Your task to perform on an android device: toggle improve location accuracy Image 0: 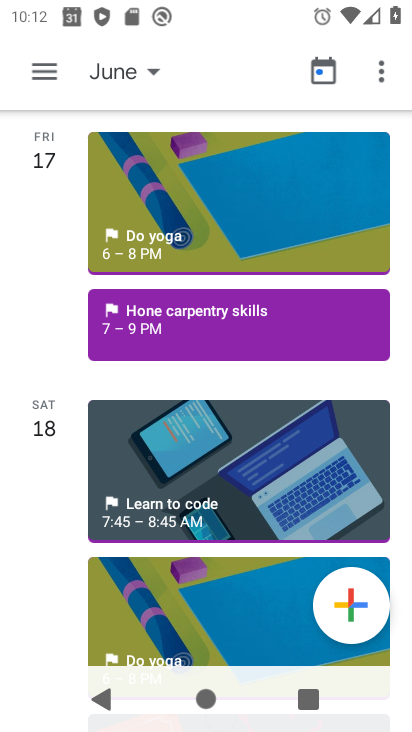
Step 0: click (382, 341)
Your task to perform on an android device: toggle improve location accuracy Image 1: 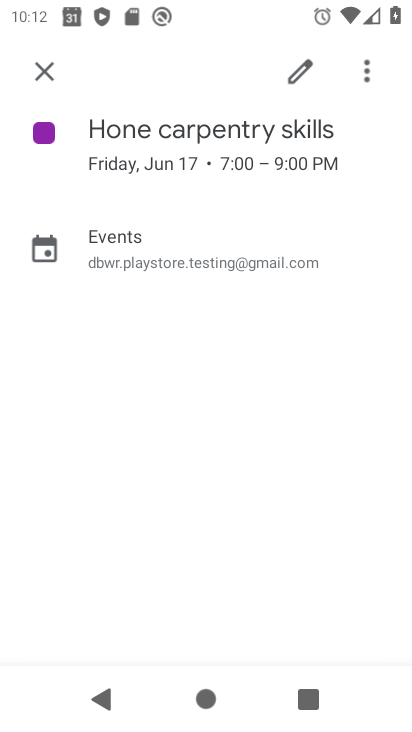
Step 1: press home button
Your task to perform on an android device: toggle improve location accuracy Image 2: 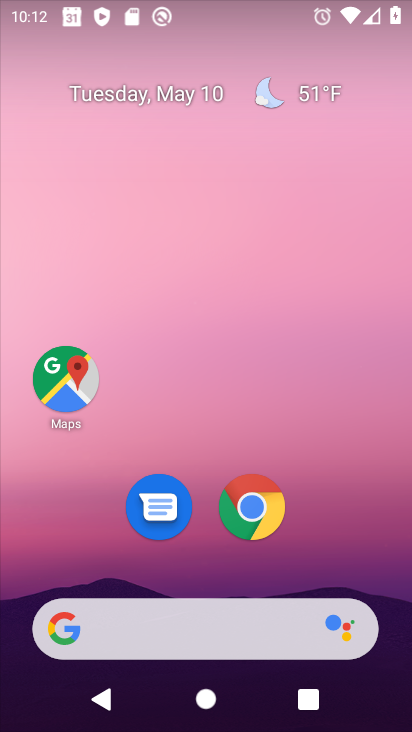
Step 2: drag from (201, 550) to (222, 6)
Your task to perform on an android device: toggle improve location accuracy Image 3: 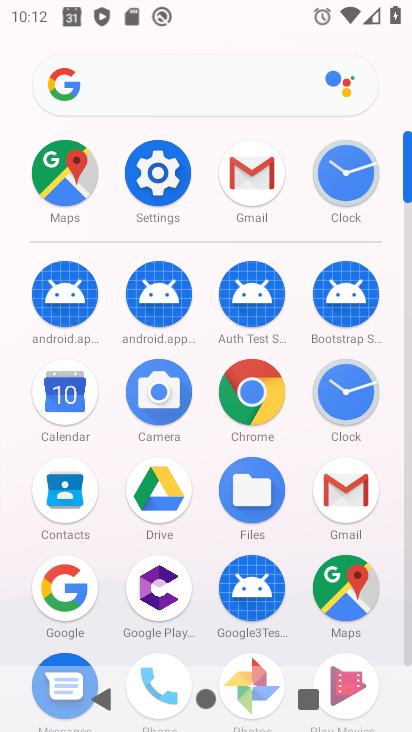
Step 3: click (169, 179)
Your task to perform on an android device: toggle improve location accuracy Image 4: 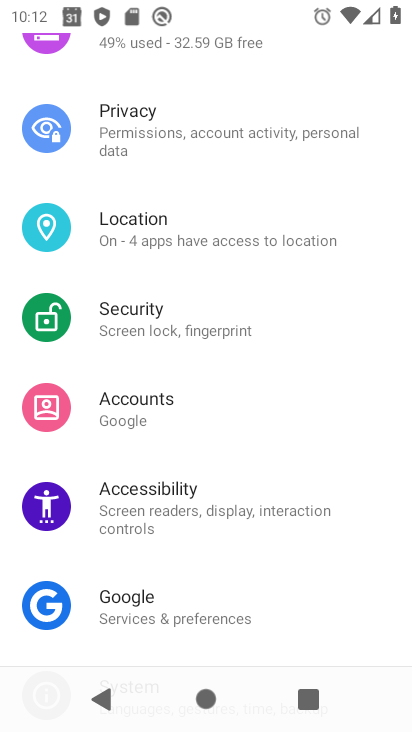
Step 4: click (126, 216)
Your task to perform on an android device: toggle improve location accuracy Image 5: 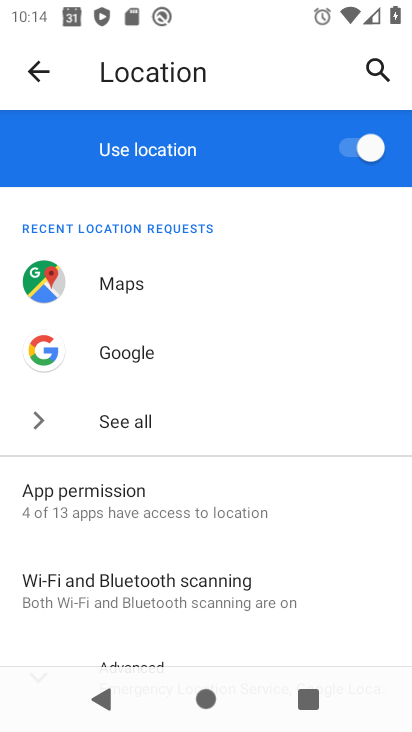
Step 5: drag from (188, 516) to (268, 209)
Your task to perform on an android device: toggle improve location accuracy Image 6: 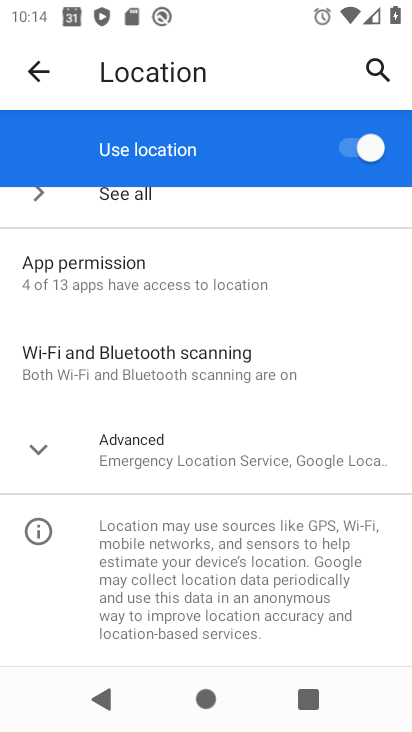
Step 6: click (168, 452)
Your task to perform on an android device: toggle improve location accuracy Image 7: 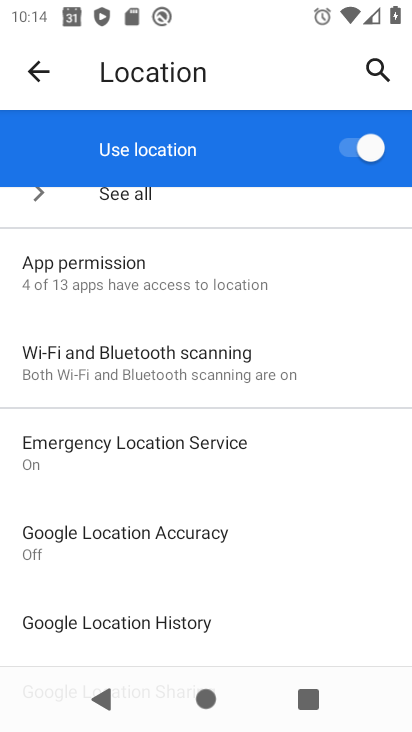
Step 7: click (165, 542)
Your task to perform on an android device: toggle improve location accuracy Image 8: 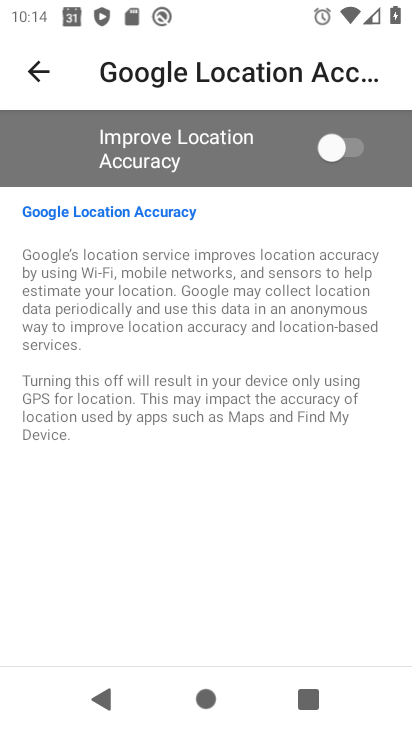
Step 8: click (349, 166)
Your task to perform on an android device: toggle improve location accuracy Image 9: 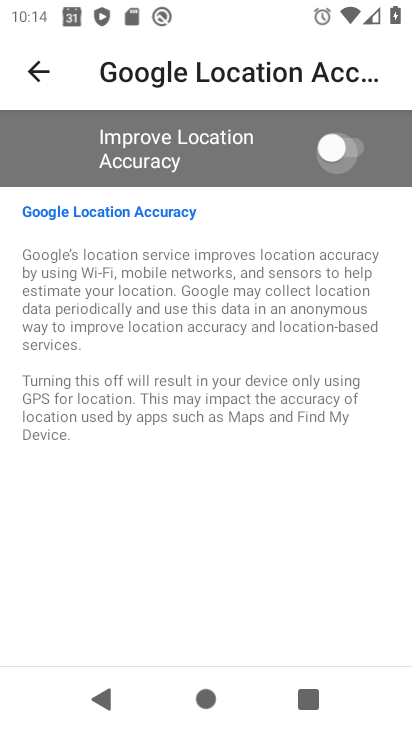
Step 9: click (349, 166)
Your task to perform on an android device: toggle improve location accuracy Image 10: 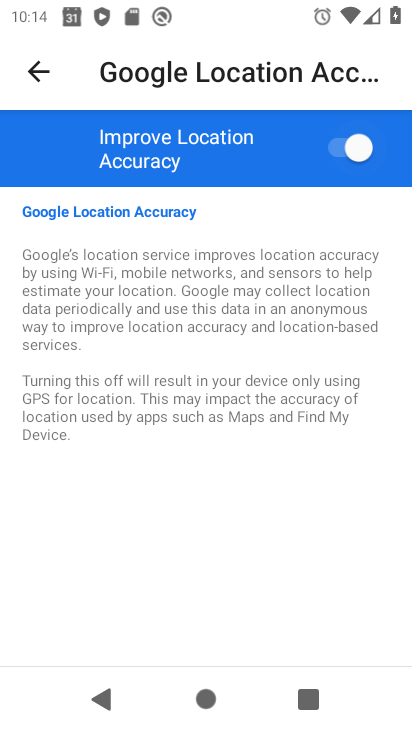
Step 10: click (349, 166)
Your task to perform on an android device: toggle improve location accuracy Image 11: 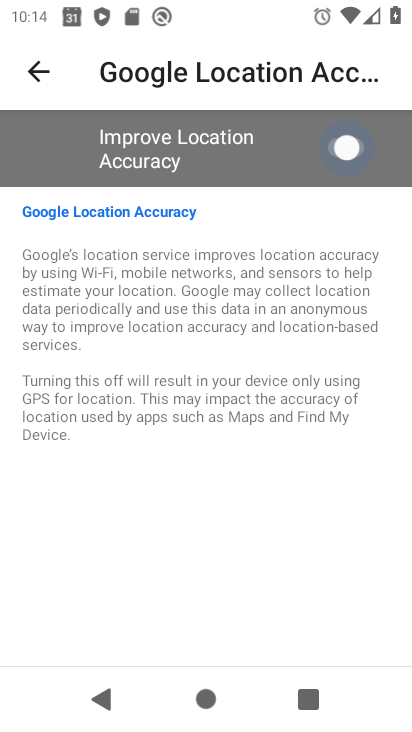
Step 11: click (349, 166)
Your task to perform on an android device: toggle improve location accuracy Image 12: 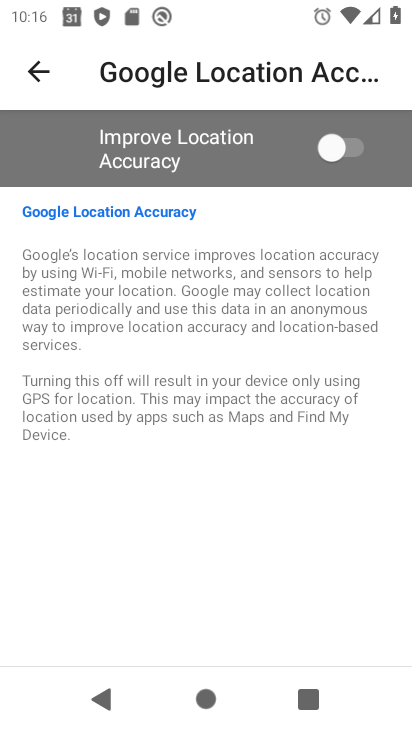
Step 12: task complete